Your task to perform on an android device: change the clock display to show seconds Image 0: 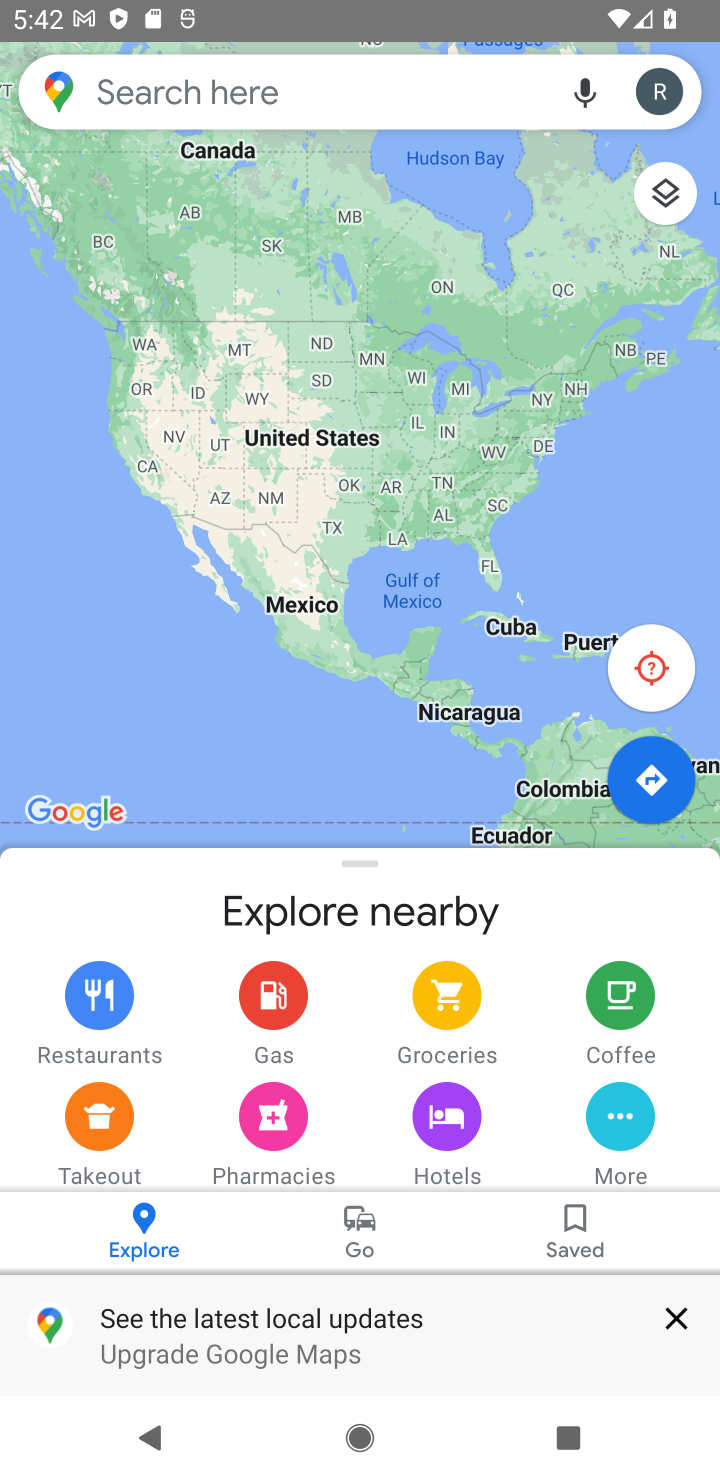
Step 0: press home button
Your task to perform on an android device: change the clock display to show seconds Image 1: 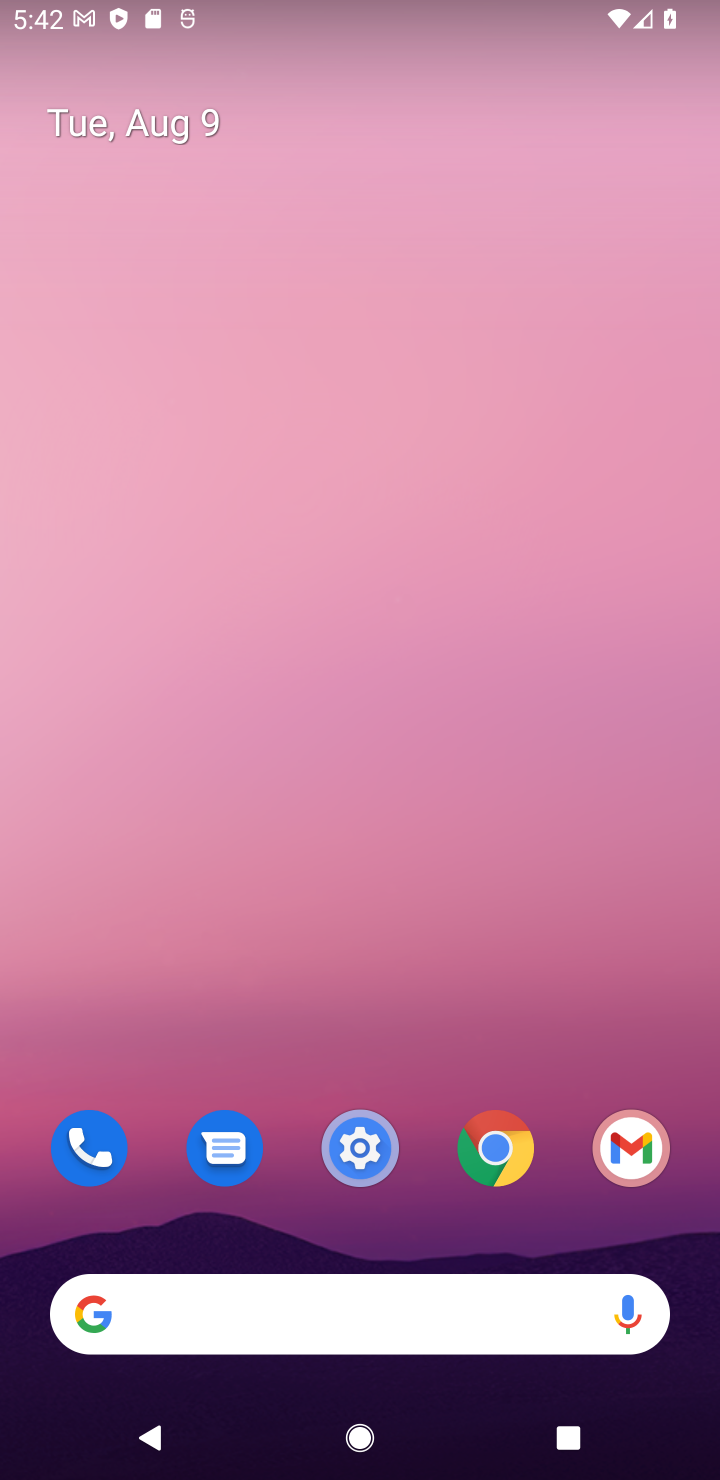
Step 1: drag from (293, 1213) to (413, 20)
Your task to perform on an android device: change the clock display to show seconds Image 2: 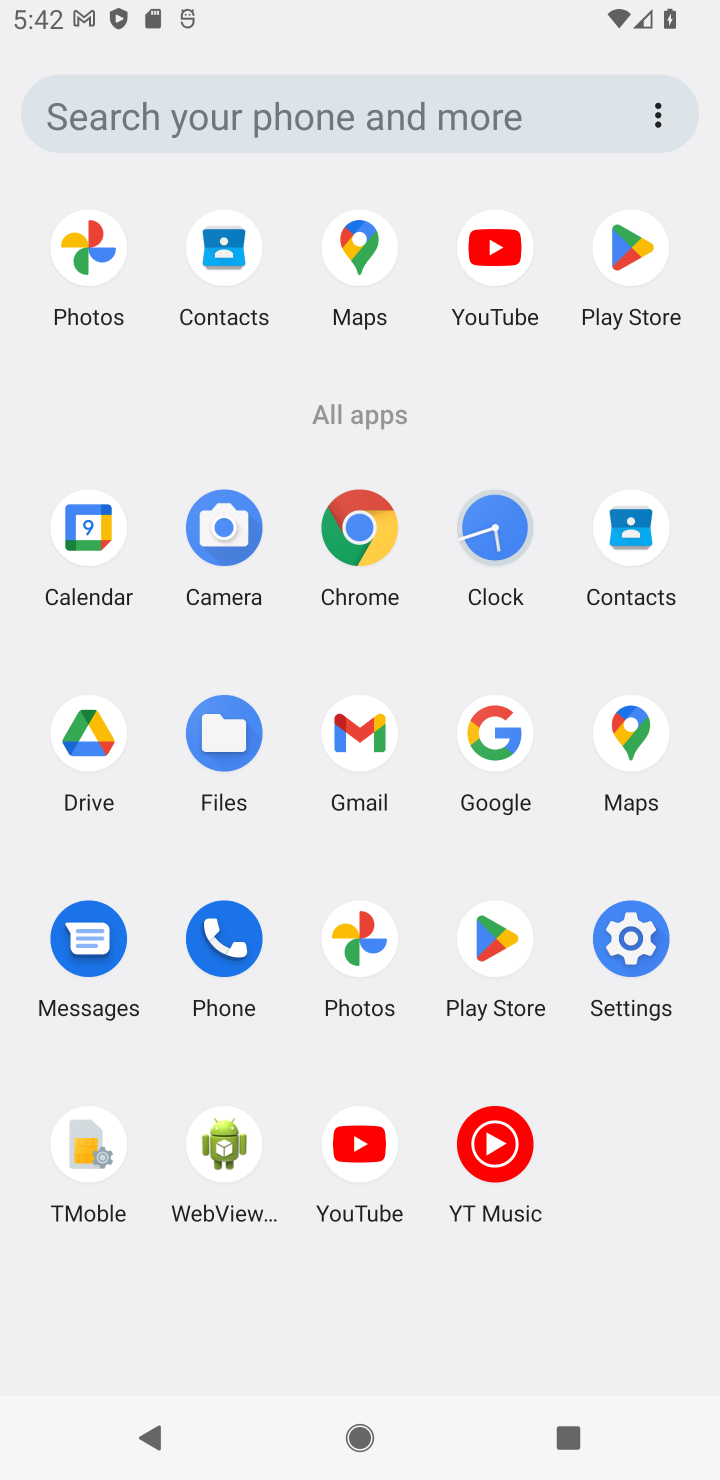
Step 2: click (501, 529)
Your task to perform on an android device: change the clock display to show seconds Image 3: 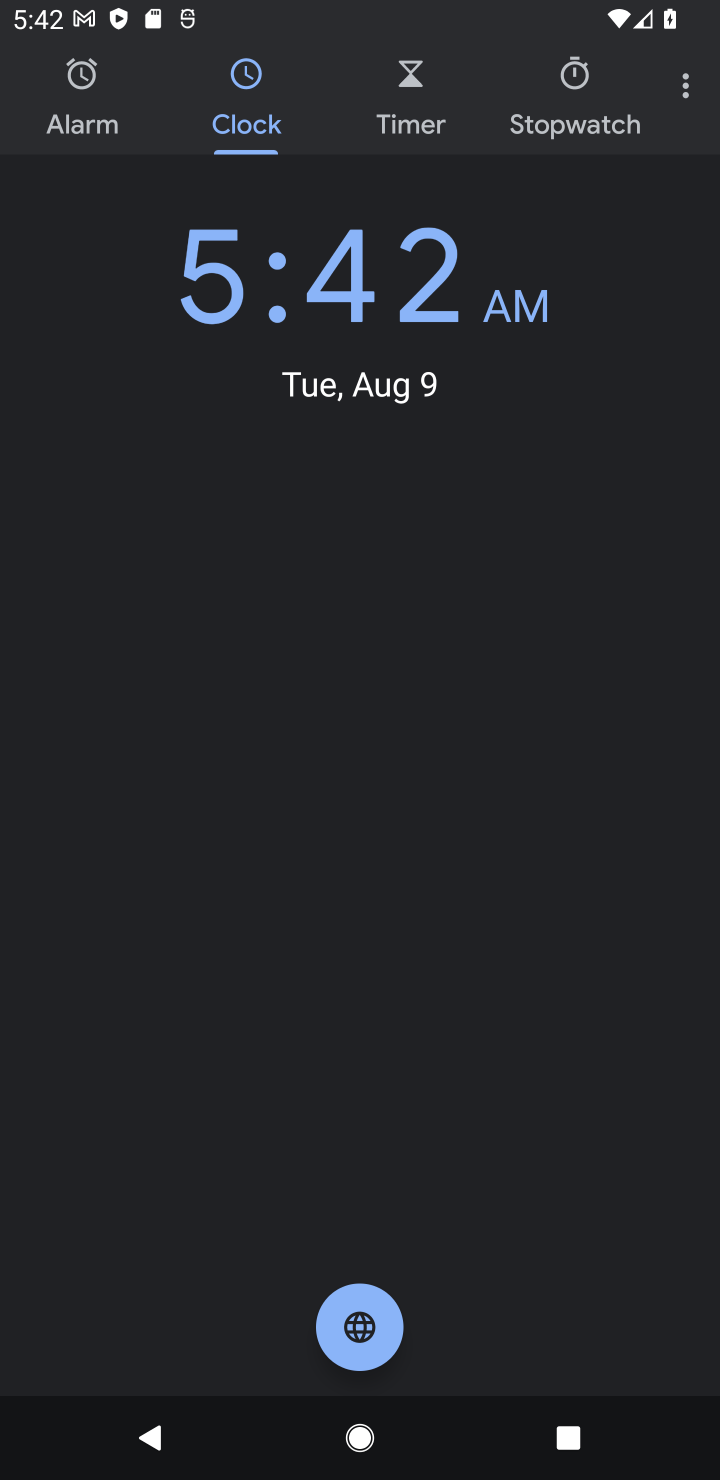
Step 3: click (676, 95)
Your task to perform on an android device: change the clock display to show seconds Image 4: 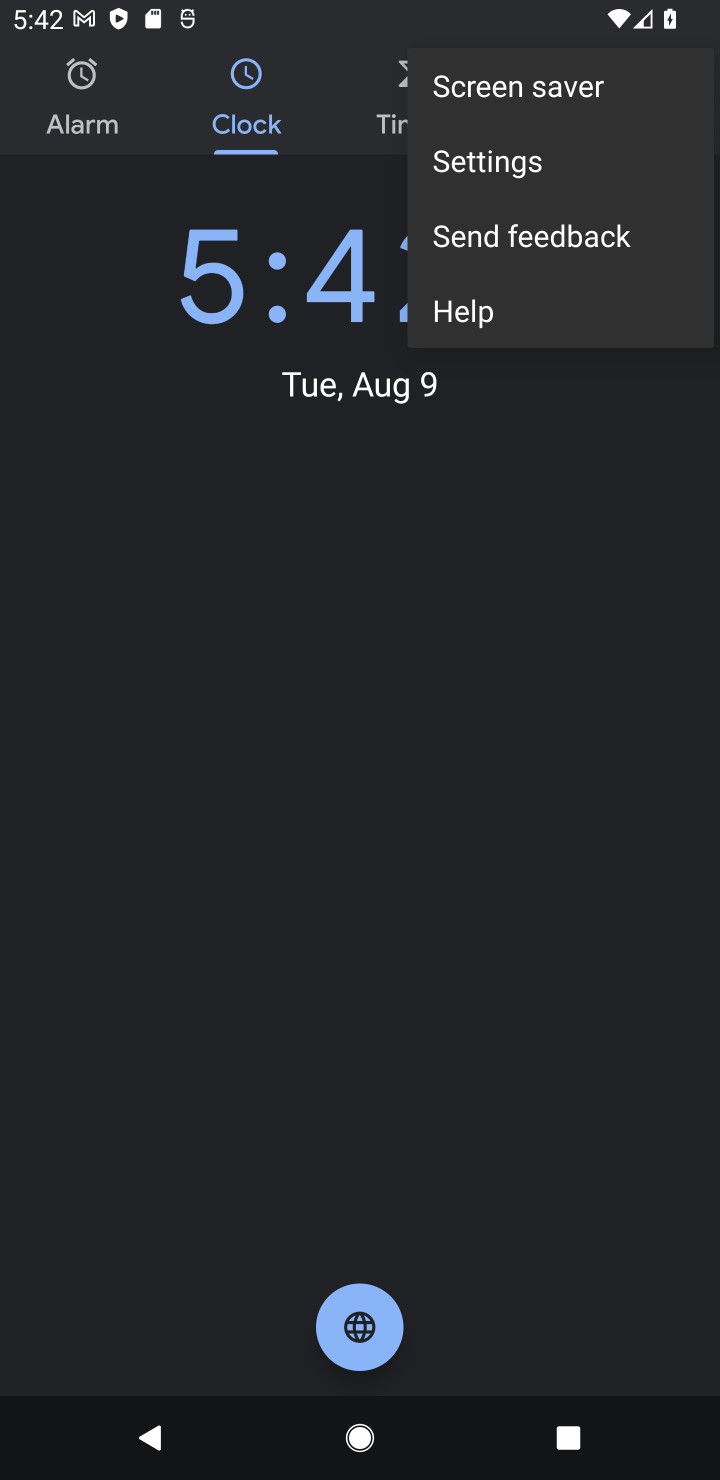
Step 4: click (481, 181)
Your task to perform on an android device: change the clock display to show seconds Image 5: 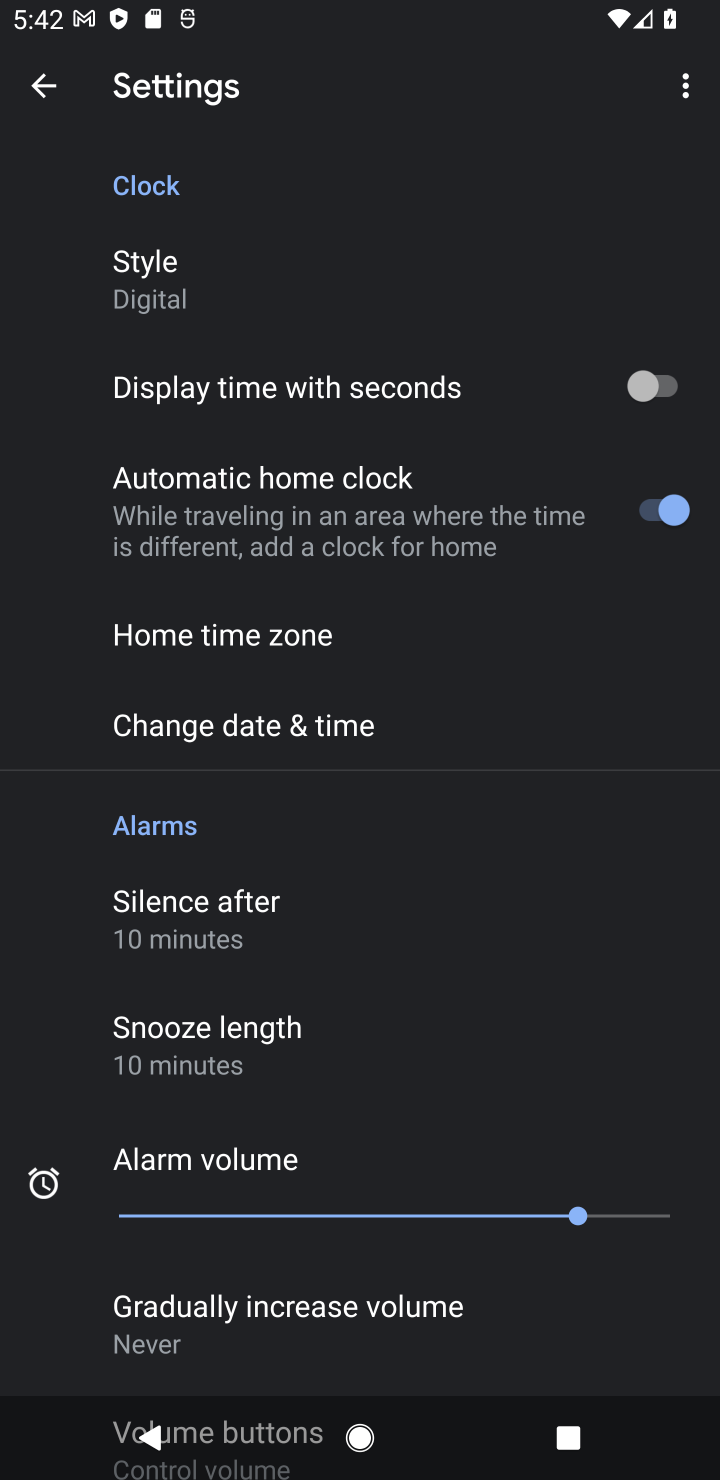
Step 5: click (193, 275)
Your task to perform on an android device: change the clock display to show seconds Image 6: 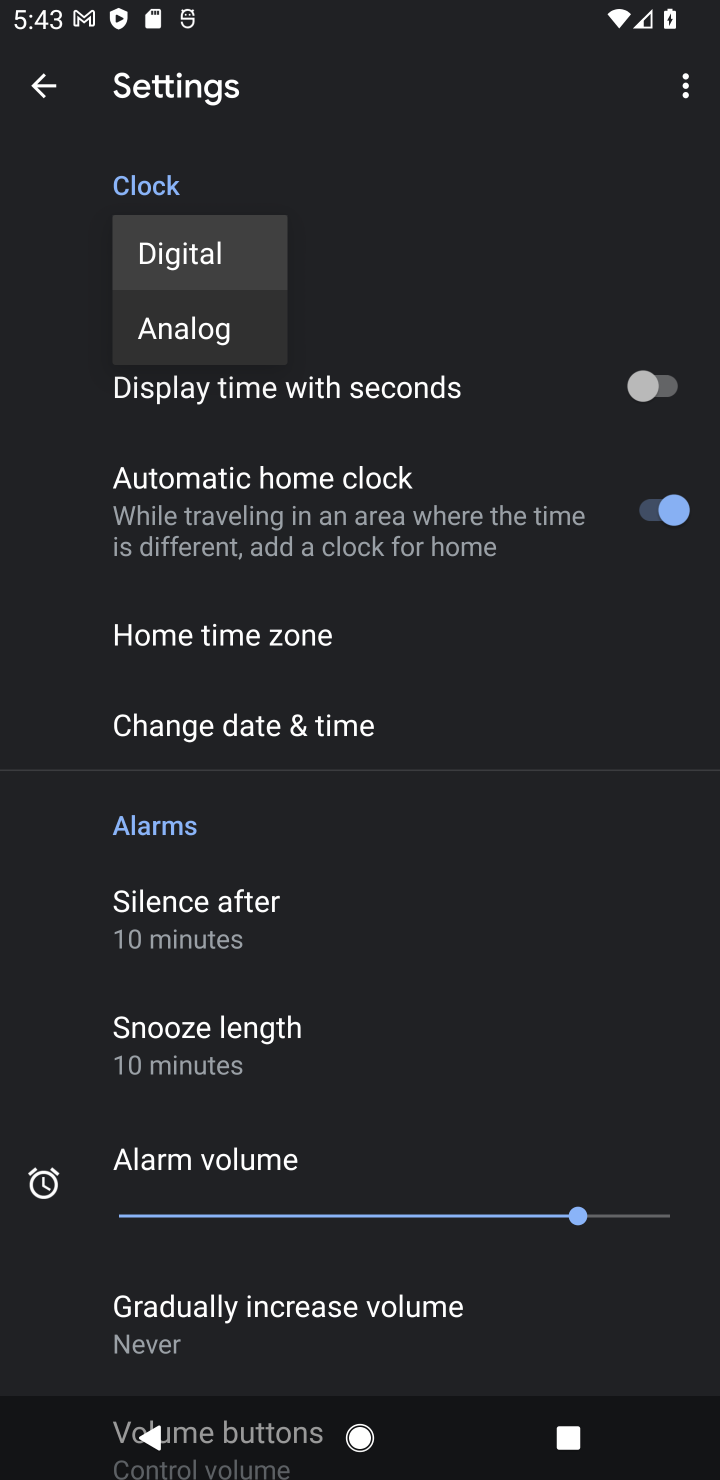
Step 6: click (245, 330)
Your task to perform on an android device: change the clock display to show seconds Image 7: 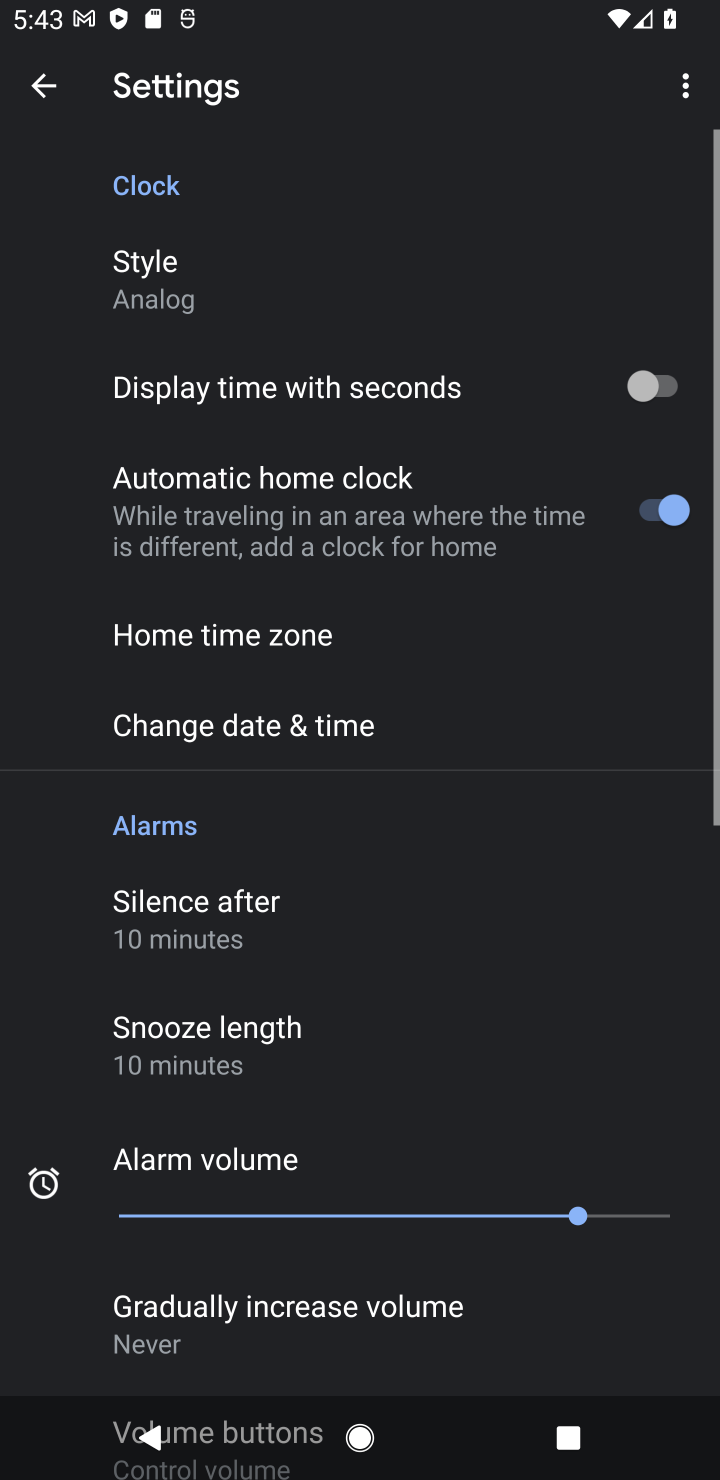
Step 7: click (677, 385)
Your task to perform on an android device: change the clock display to show seconds Image 8: 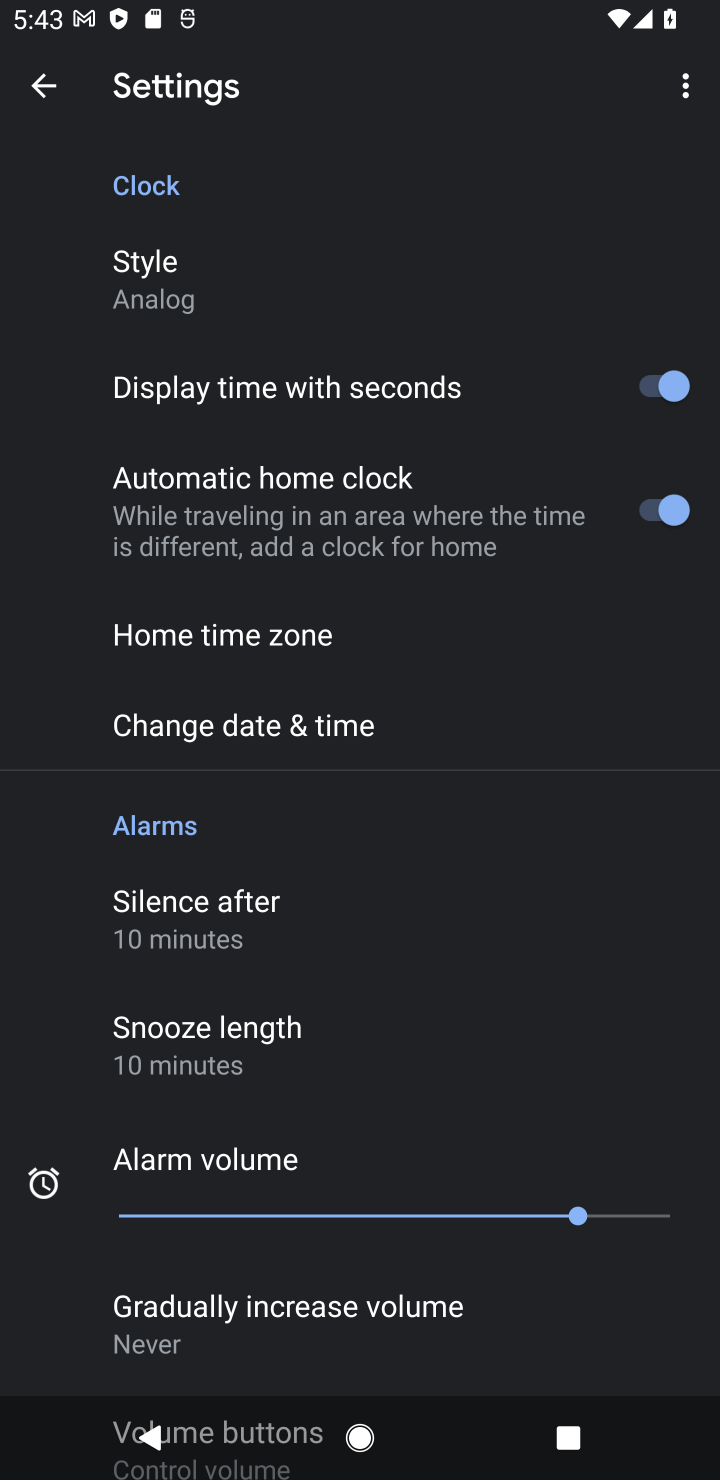
Step 8: task complete